Your task to perform on an android device: toggle location history Image 0: 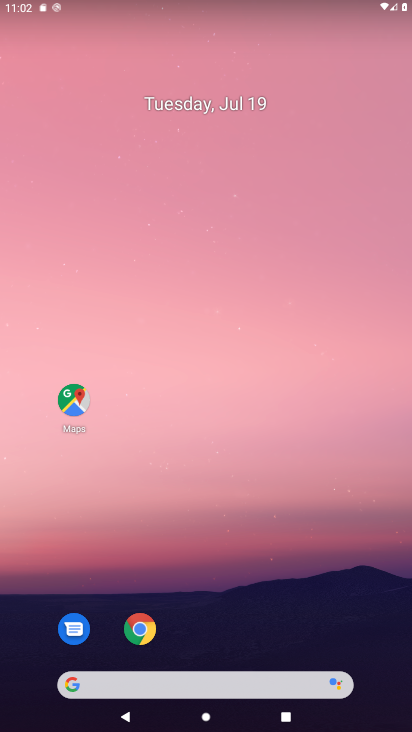
Step 0: drag from (335, 586) to (352, 139)
Your task to perform on an android device: toggle location history Image 1: 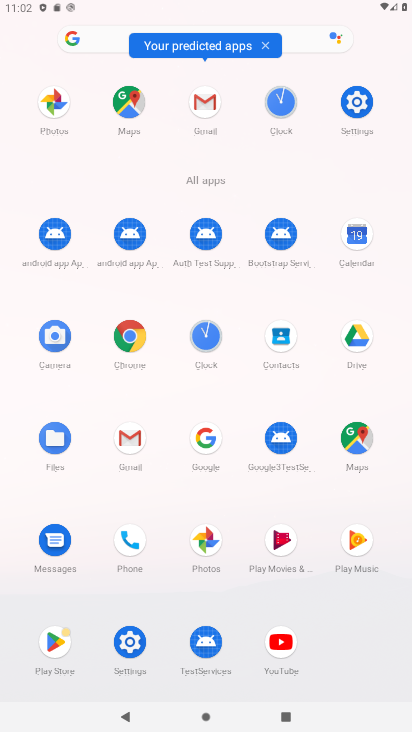
Step 1: click (358, 107)
Your task to perform on an android device: toggle location history Image 2: 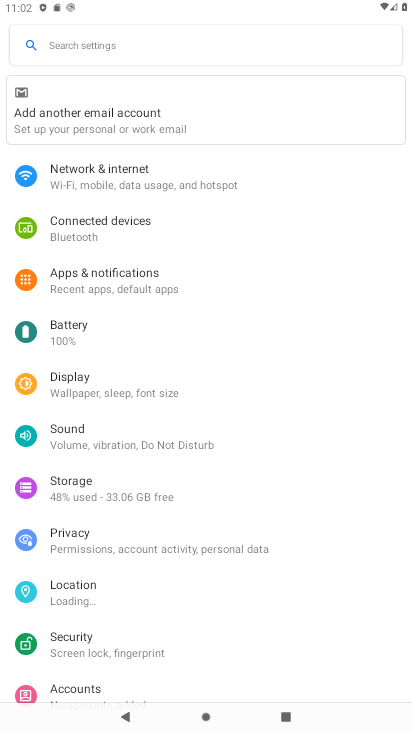
Step 2: drag from (360, 405) to (344, 272)
Your task to perform on an android device: toggle location history Image 3: 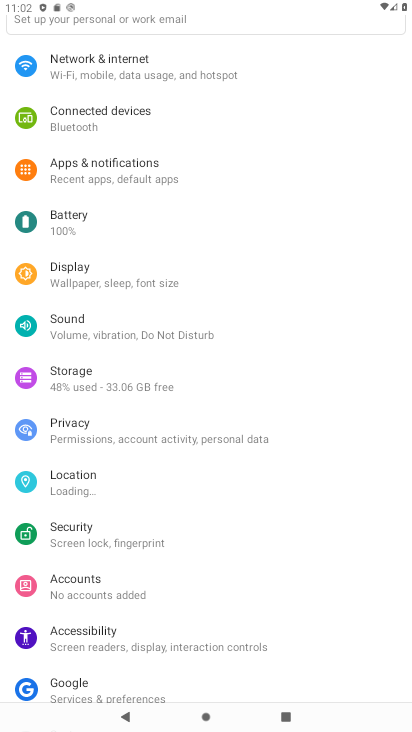
Step 3: drag from (336, 473) to (339, 319)
Your task to perform on an android device: toggle location history Image 4: 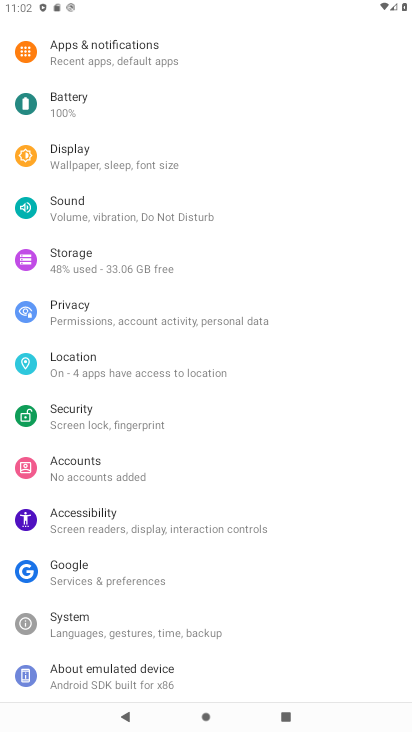
Step 4: click (105, 367)
Your task to perform on an android device: toggle location history Image 5: 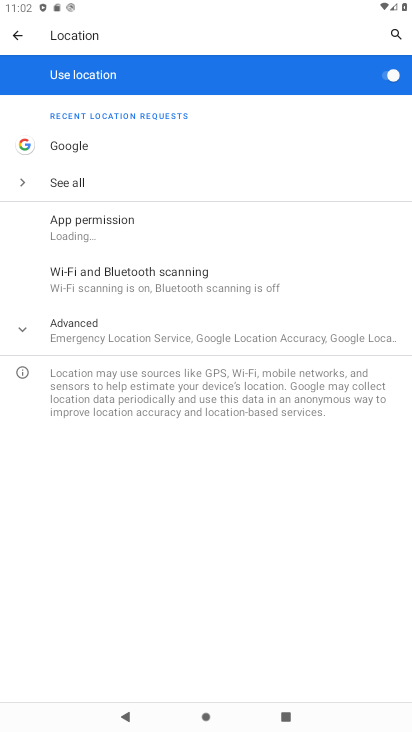
Step 5: click (170, 344)
Your task to perform on an android device: toggle location history Image 6: 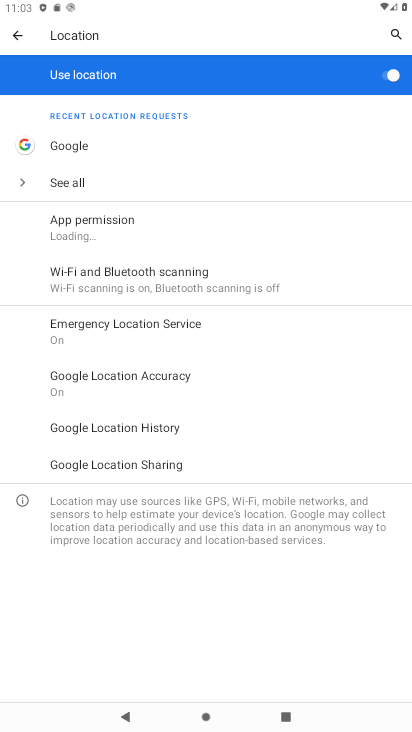
Step 6: click (161, 424)
Your task to perform on an android device: toggle location history Image 7: 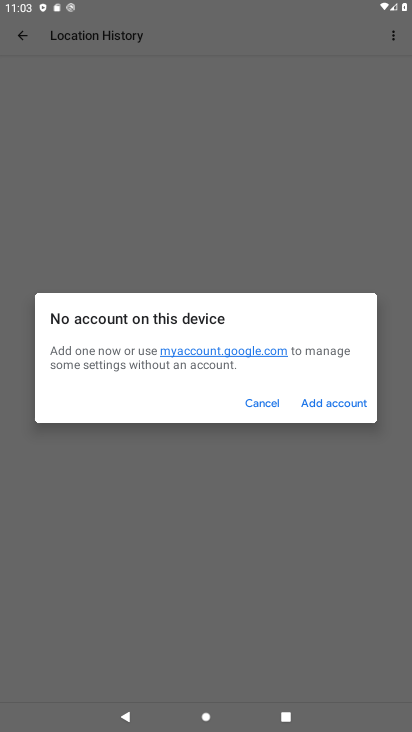
Step 7: task complete